Your task to perform on an android device: What's on my calendar tomorrow? Image 0: 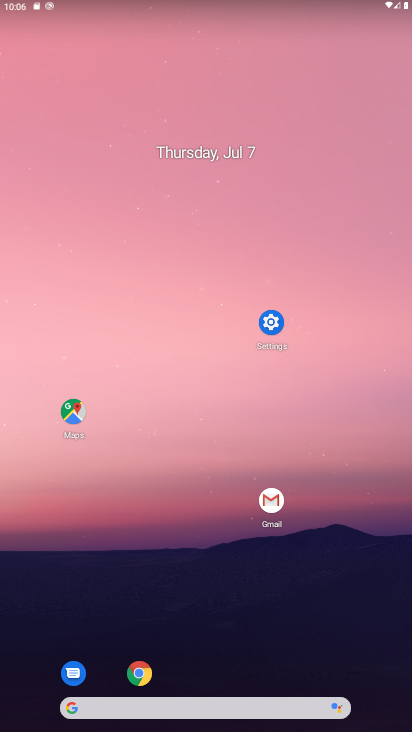
Step 0: drag from (399, 676) to (396, 129)
Your task to perform on an android device: What's on my calendar tomorrow? Image 1: 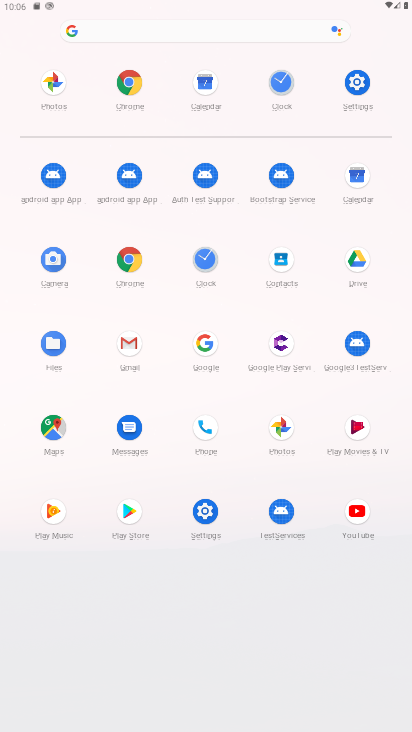
Step 1: drag from (357, 166) to (182, 386)
Your task to perform on an android device: What's on my calendar tomorrow? Image 2: 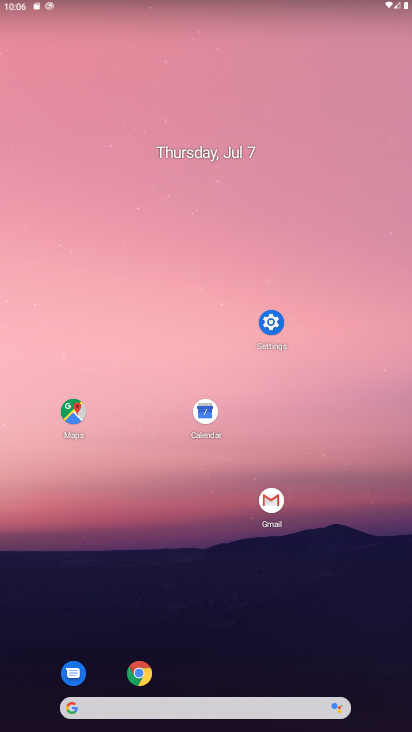
Step 2: click (204, 416)
Your task to perform on an android device: What's on my calendar tomorrow? Image 3: 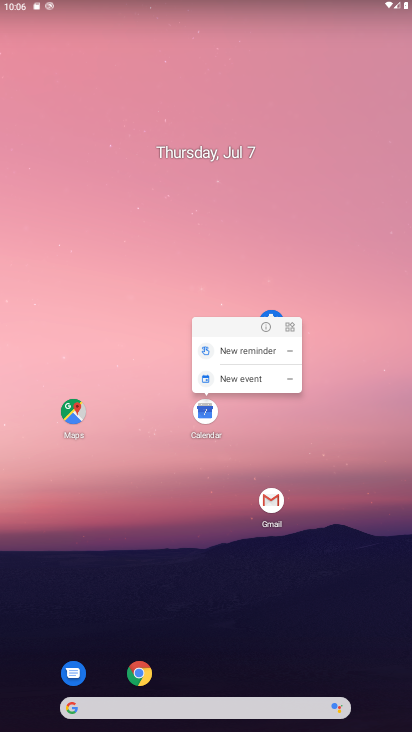
Step 3: click (204, 418)
Your task to perform on an android device: What's on my calendar tomorrow? Image 4: 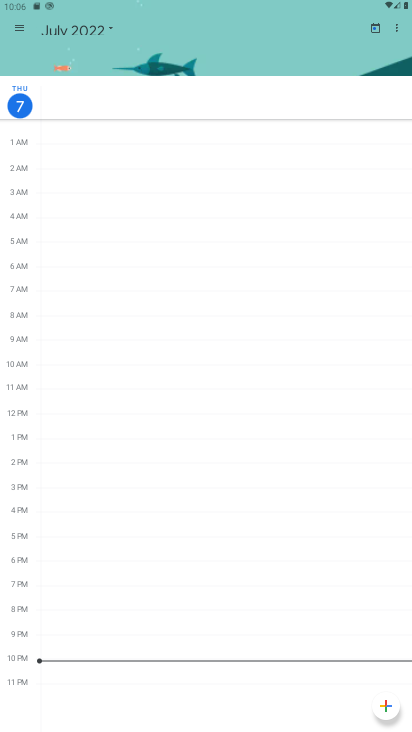
Step 4: click (109, 27)
Your task to perform on an android device: What's on my calendar tomorrow? Image 5: 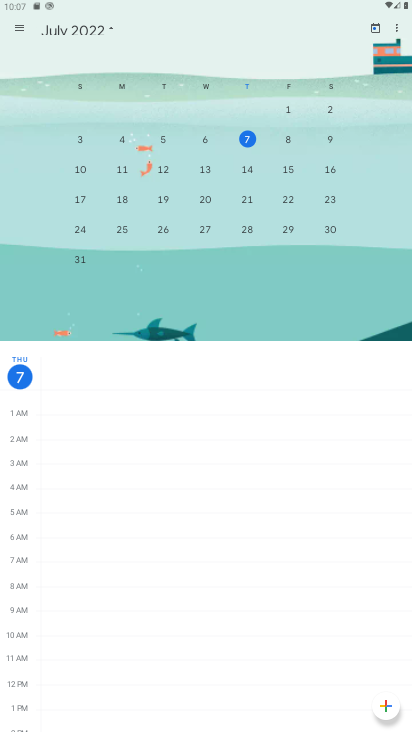
Step 5: click (290, 139)
Your task to perform on an android device: What's on my calendar tomorrow? Image 6: 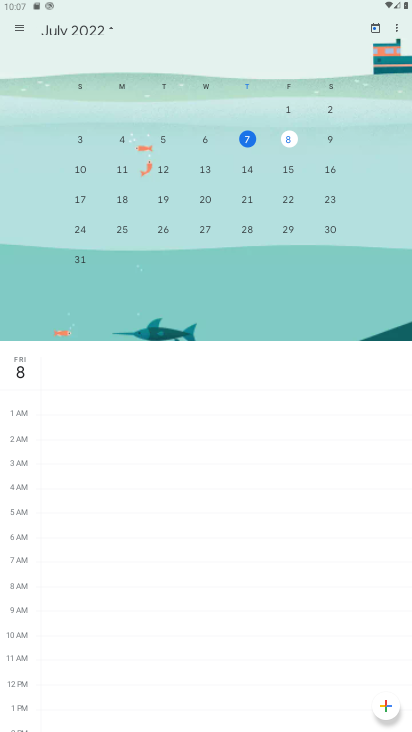
Step 6: click (290, 139)
Your task to perform on an android device: What's on my calendar tomorrow? Image 7: 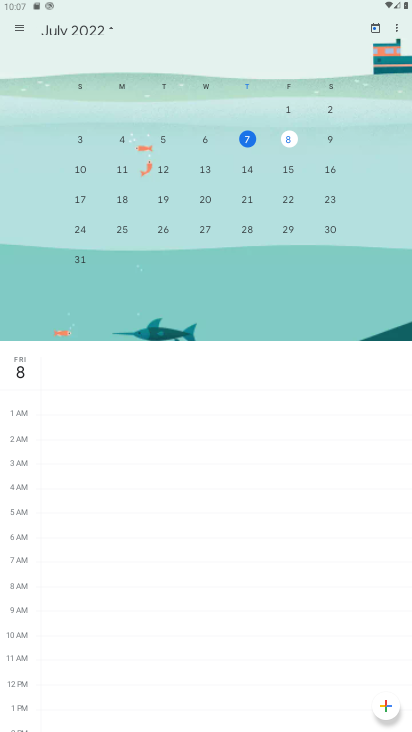
Step 7: click (15, 24)
Your task to perform on an android device: What's on my calendar tomorrow? Image 8: 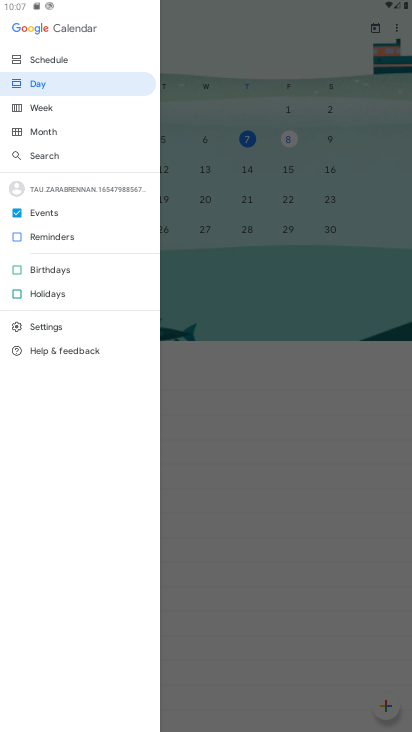
Step 8: click (20, 236)
Your task to perform on an android device: What's on my calendar tomorrow? Image 9: 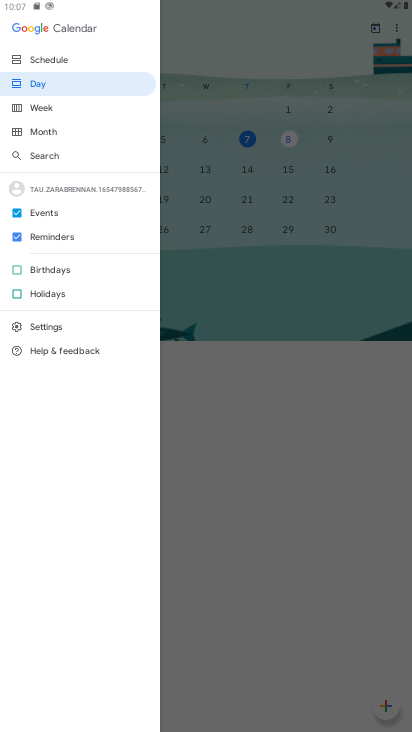
Step 9: click (20, 271)
Your task to perform on an android device: What's on my calendar tomorrow? Image 10: 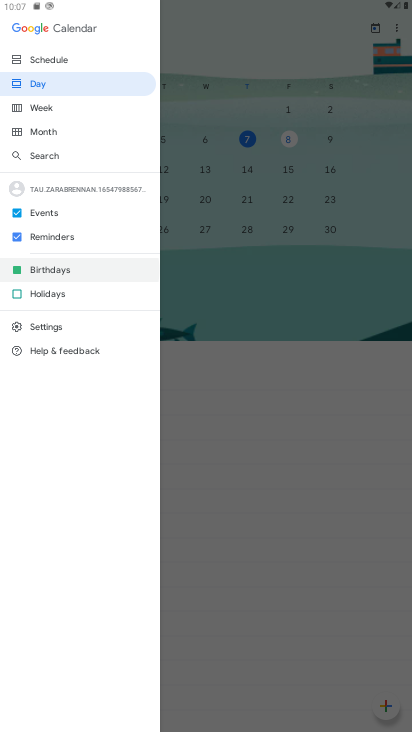
Step 10: click (16, 295)
Your task to perform on an android device: What's on my calendar tomorrow? Image 11: 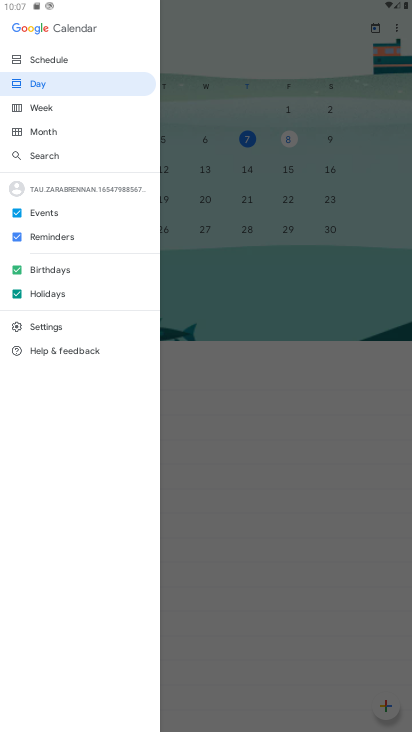
Step 11: click (59, 53)
Your task to perform on an android device: What's on my calendar tomorrow? Image 12: 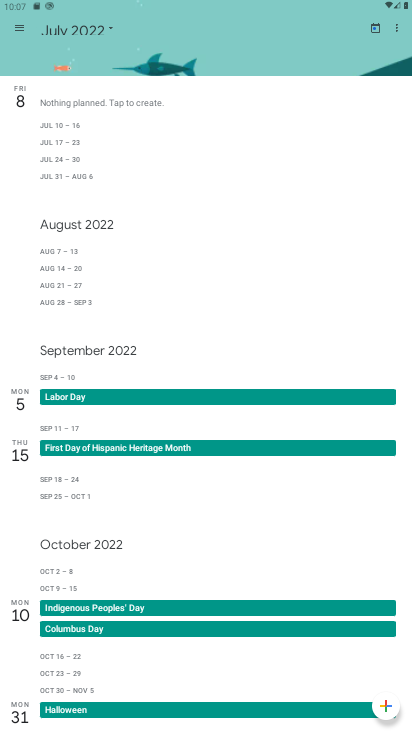
Step 12: task complete